Your task to perform on an android device: What is the recent news? Image 0: 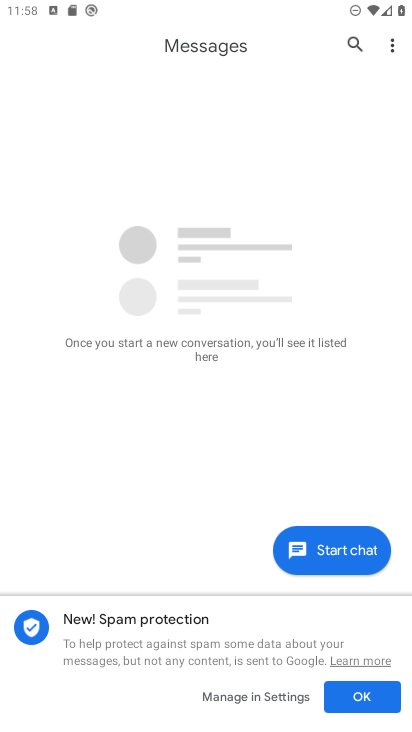
Step 0: press home button
Your task to perform on an android device: What is the recent news? Image 1: 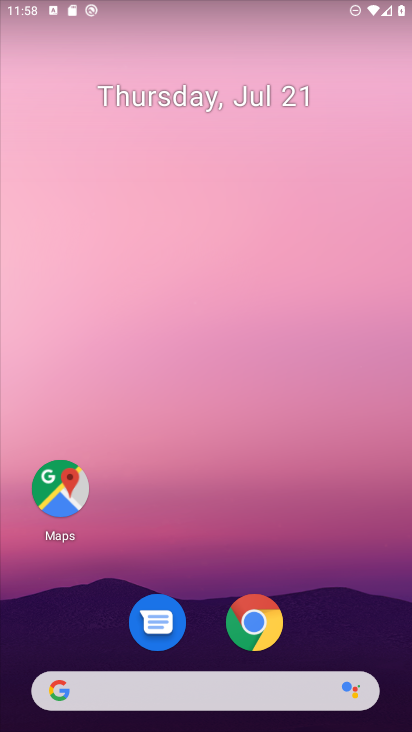
Step 1: click (277, 693)
Your task to perform on an android device: What is the recent news? Image 2: 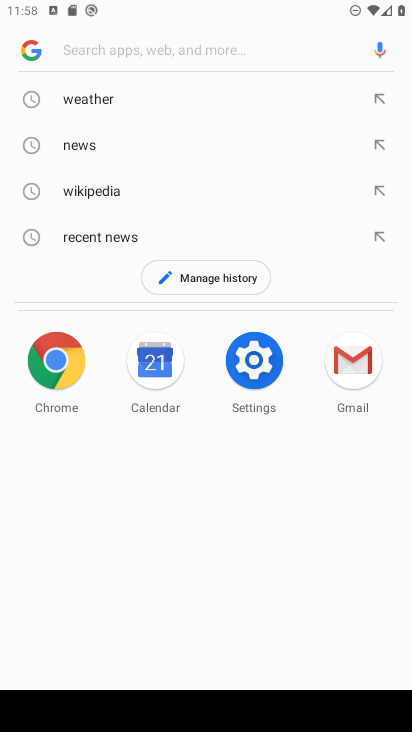
Step 2: click (166, 232)
Your task to perform on an android device: What is the recent news? Image 3: 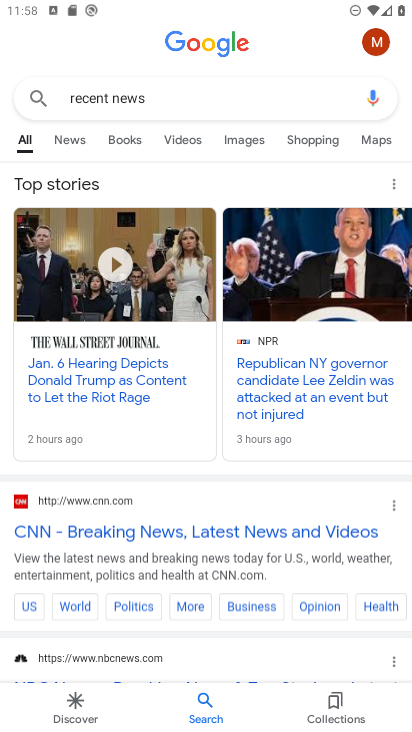
Step 3: task complete